Your task to perform on an android device: turn off wifi Image 0: 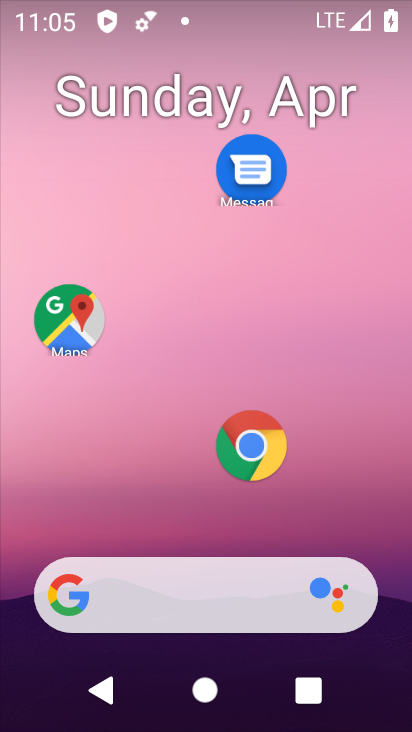
Step 0: drag from (230, 510) to (305, 118)
Your task to perform on an android device: turn off wifi Image 1: 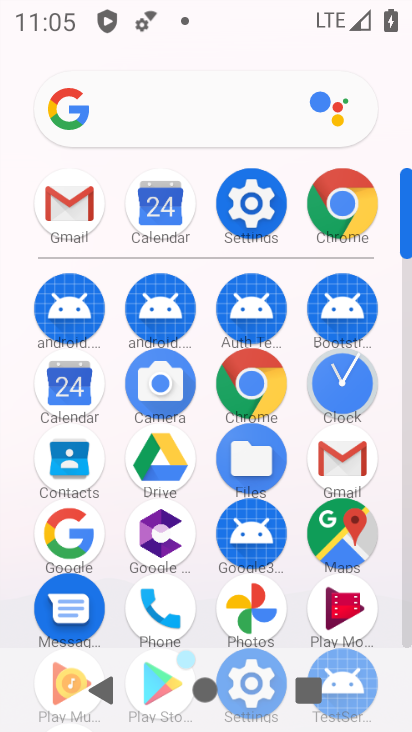
Step 1: click (272, 222)
Your task to perform on an android device: turn off wifi Image 2: 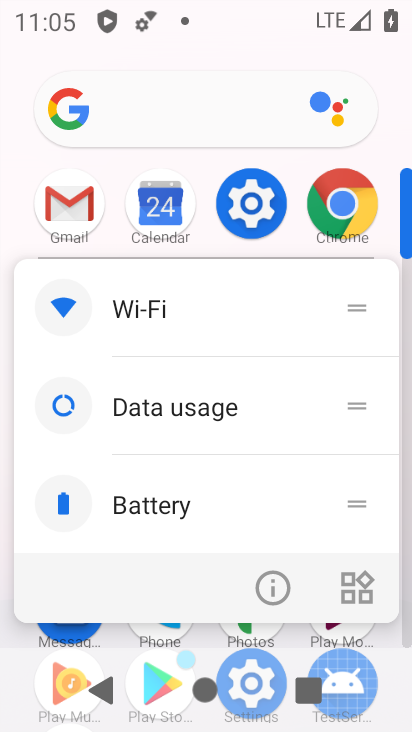
Step 2: click (256, 203)
Your task to perform on an android device: turn off wifi Image 3: 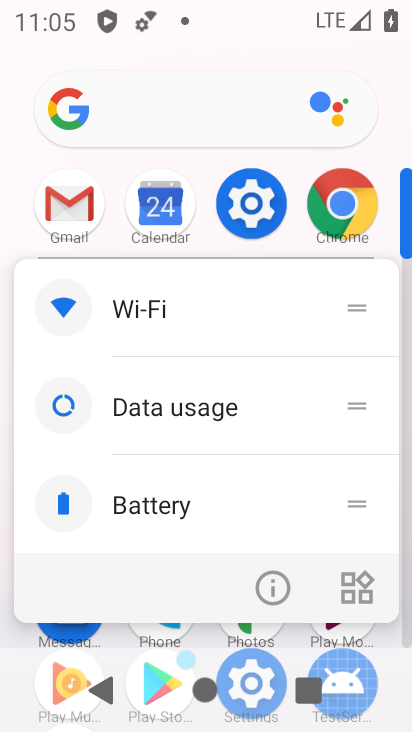
Step 3: click (244, 214)
Your task to perform on an android device: turn off wifi Image 4: 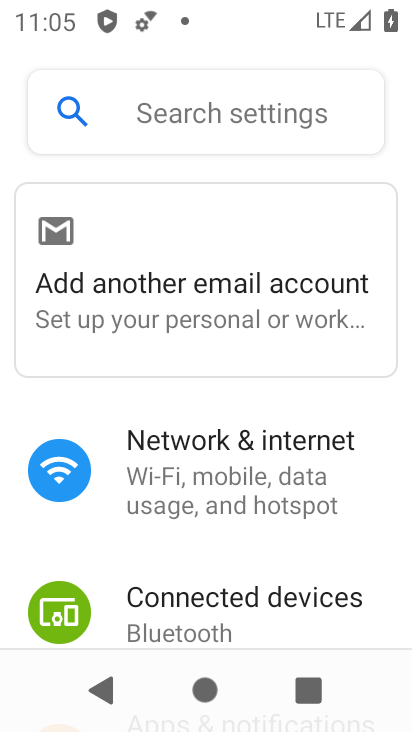
Step 4: click (205, 462)
Your task to perform on an android device: turn off wifi Image 5: 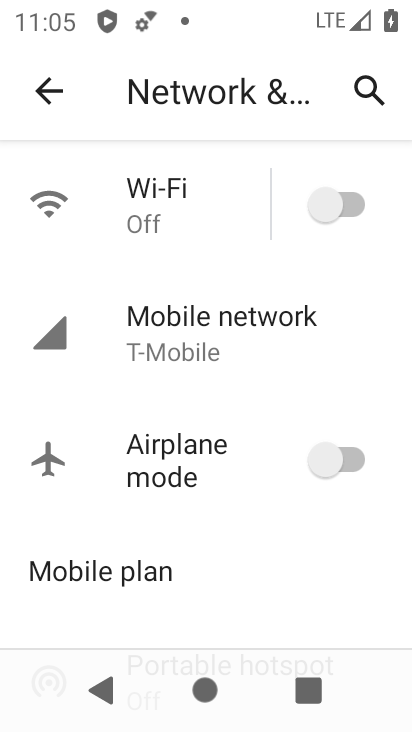
Step 5: task complete